Your task to perform on an android device: turn on airplane mode Image 0: 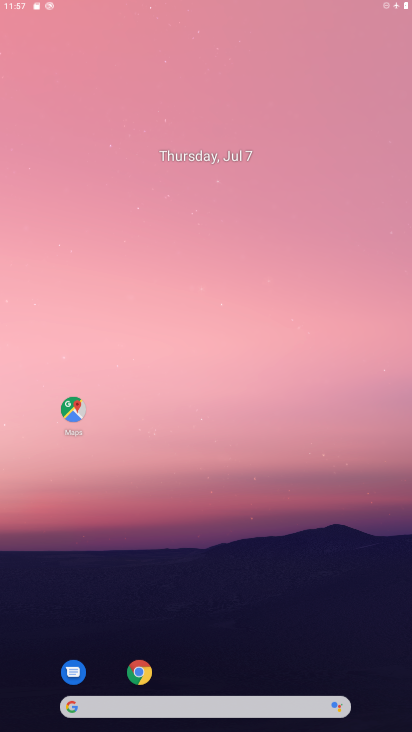
Step 0: drag from (244, 552) to (201, 214)
Your task to perform on an android device: turn on airplane mode Image 1: 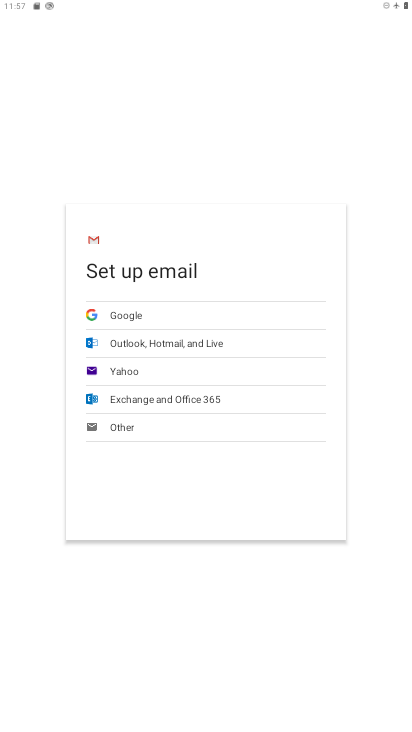
Step 1: press home button
Your task to perform on an android device: turn on airplane mode Image 2: 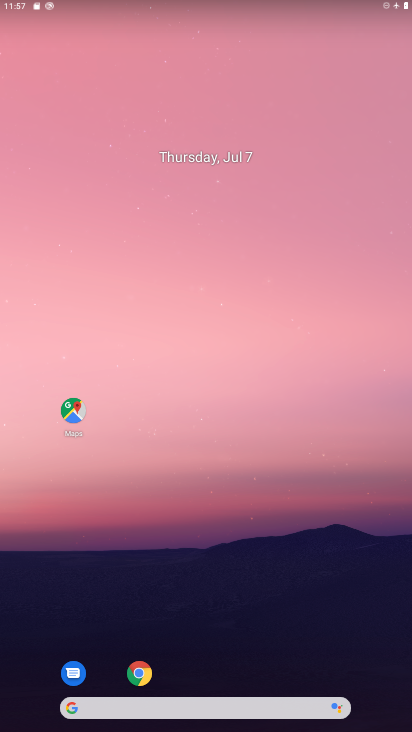
Step 2: drag from (249, 575) to (214, 239)
Your task to perform on an android device: turn on airplane mode Image 3: 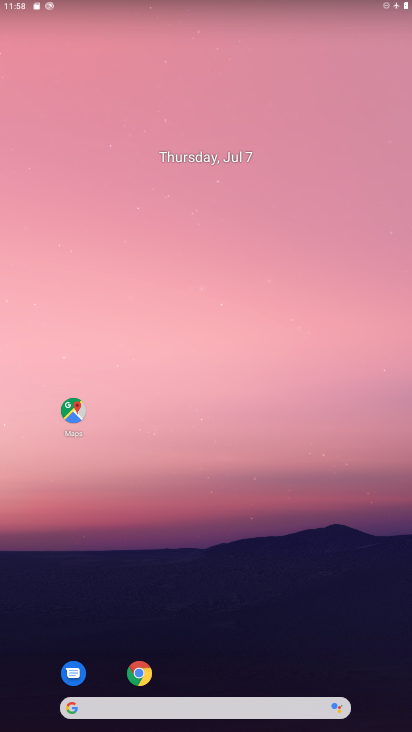
Step 3: click (247, 336)
Your task to perform on an android device: turn on airplane mode Image 4: 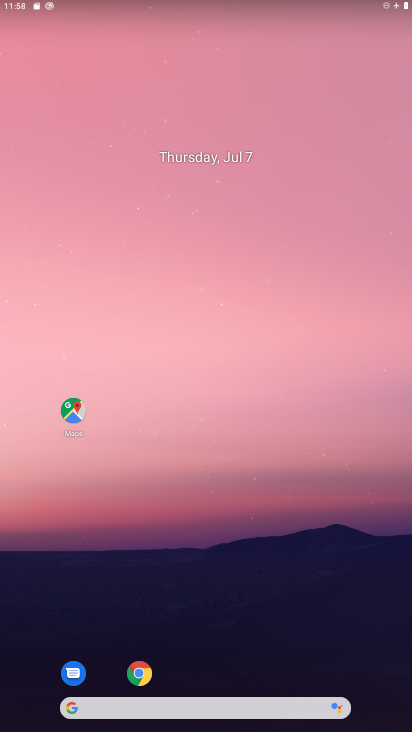
Step 4: drag from (242, 520) to (181, 0)
Your task to perform on an android device: turn on airplane mode Image 5: 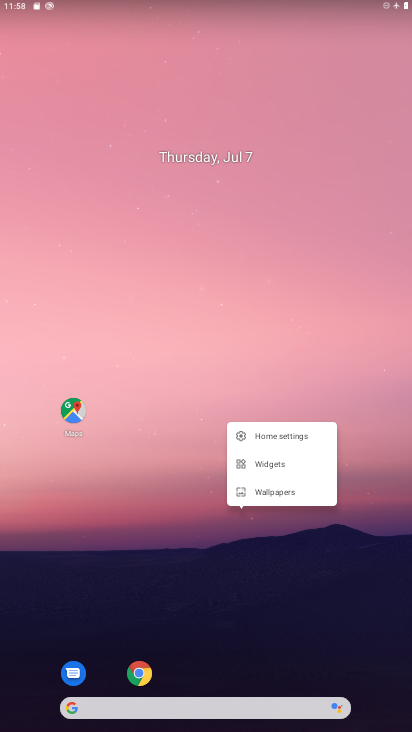
Step 5: click (121, 490)
Your task to perform on an android device: turn on airplane mode Image 6: 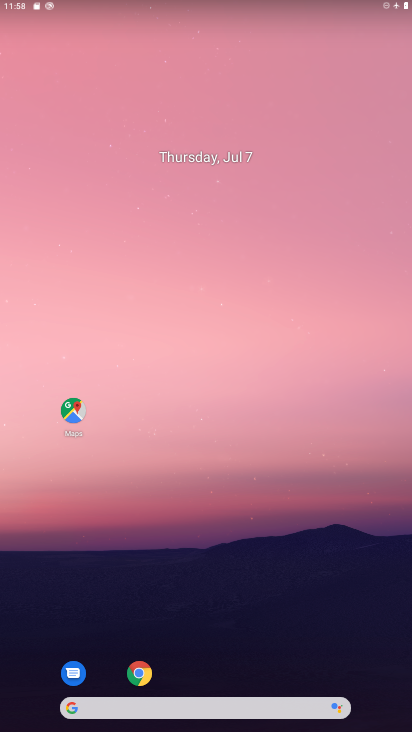
Step 6: drag from (169, 513) to (185, 84)
Your task to perform on an android device: turn on airplane mode Image 7: 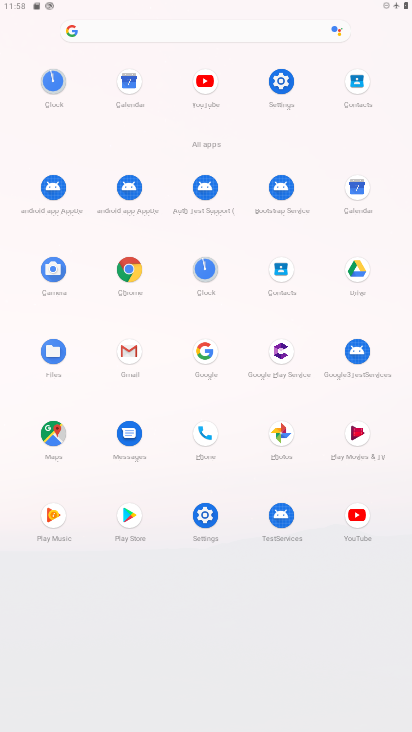
Step 7: click (196, 531)
Your task to perform on an android device: turn on airplane mode Image 8: 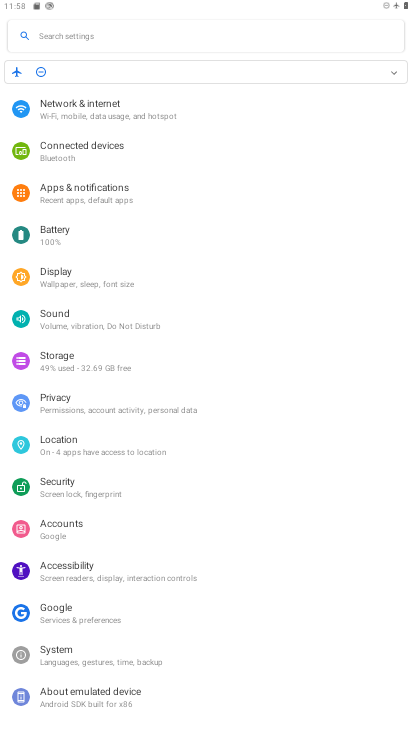
Step 8: click (101, 106)
Your task to perform on an android device: turn on airplane mode Image 9: 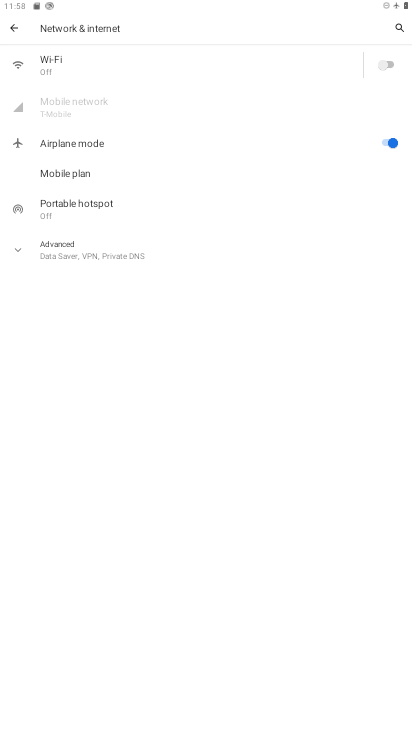
Step 9: task complete